Your task to perform on an android device: Show me popular videos on Youtube Image 0: 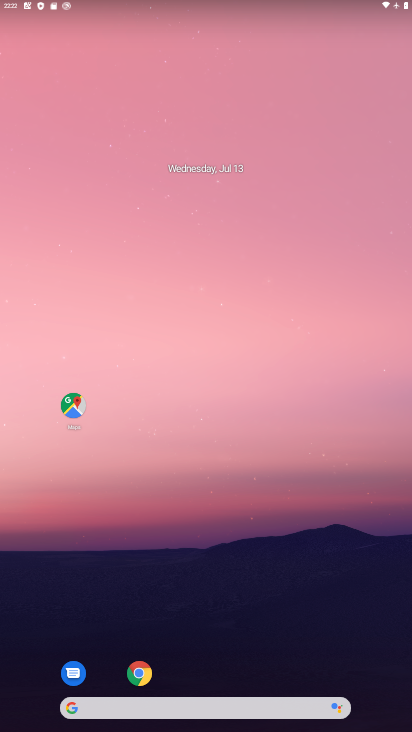
Step 0: drag from (208, 670) to (207, 302)
Your task to perform on an android device: Show me popular videos on Youtube Image 1: 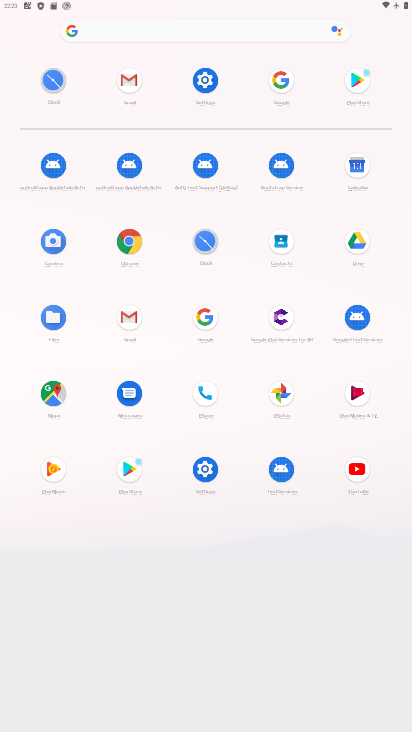
Step 1: click (339, 479)
Your task to perform on an android device: Show me popular videos on Youtube Image 2: 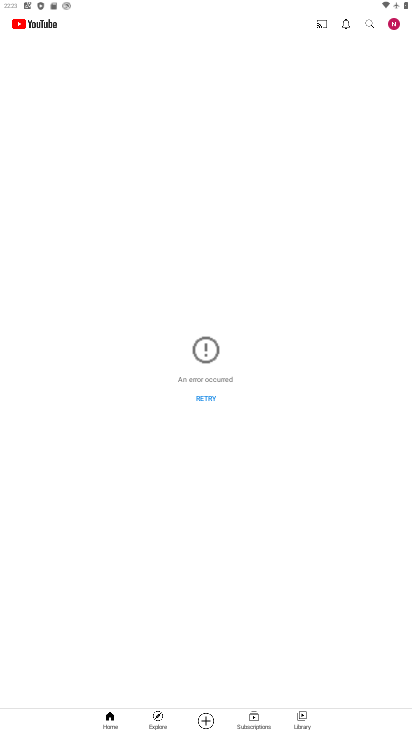
Step 2: click (363, 25)
Your task to perform on an android device: Show me popular videos on Youtube Image 3: 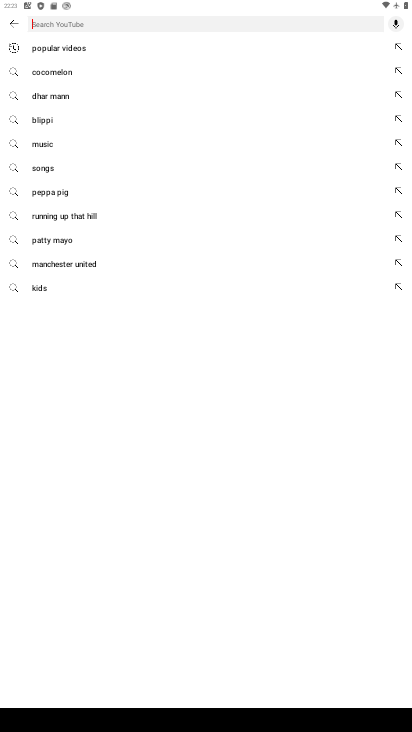
Step 3: click (134, 46)
Your task to perform on an android device: Show me popular videos on Youtube Image 4: 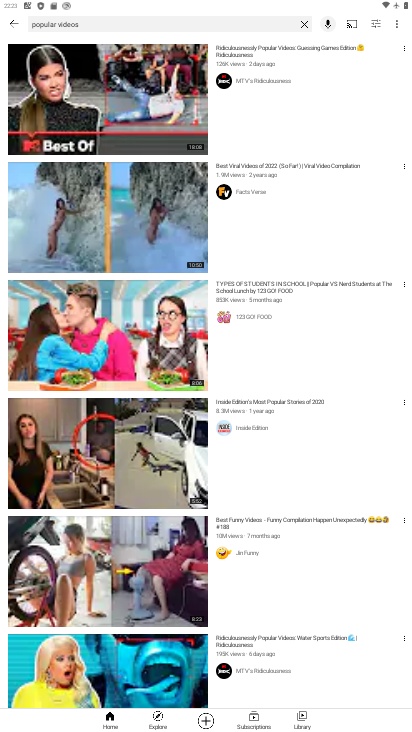
Step 4: task complete